Your task to perform on an android device: Open location settings Image 0: 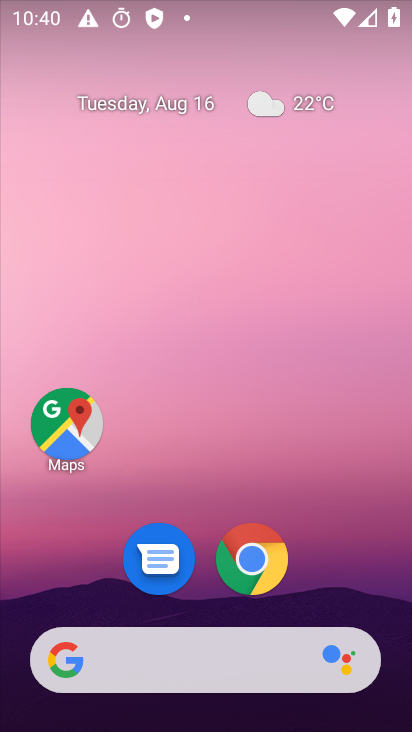
Step 0: drag from (200, 544) to (241, 26)
Your task to perform on an android device: Open location settings Image 1: 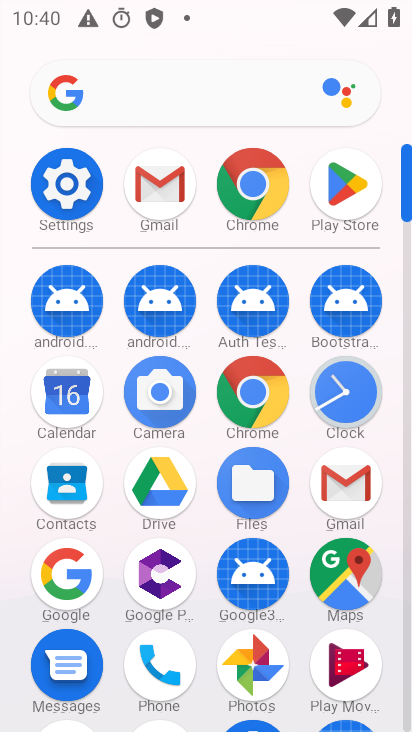
Step 1: click (68, 190)
Your task to perform on an android device: Open location settings Image 2: 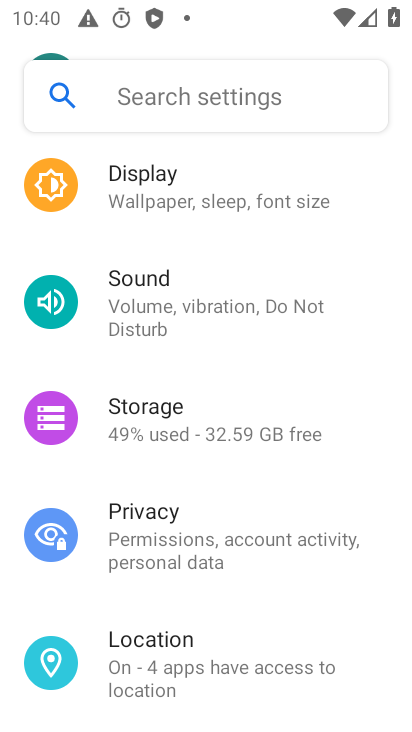
Step 2: click (175, 675)
Your task to perform on an android device: Open location settings Image 3: 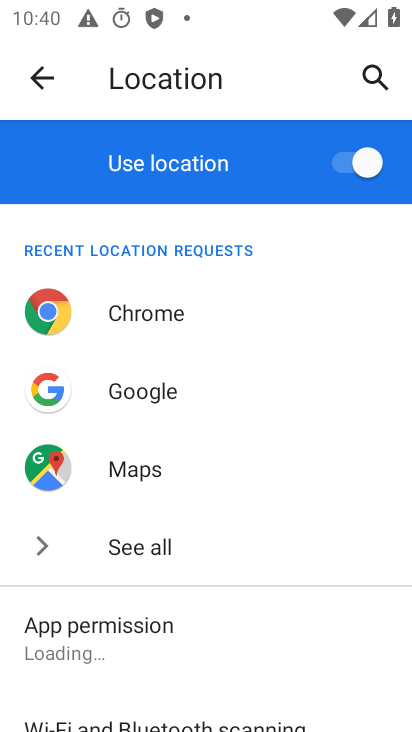
Step 3: task complete